Your task to perform on an android device: What's on my calendar today? Image 0: 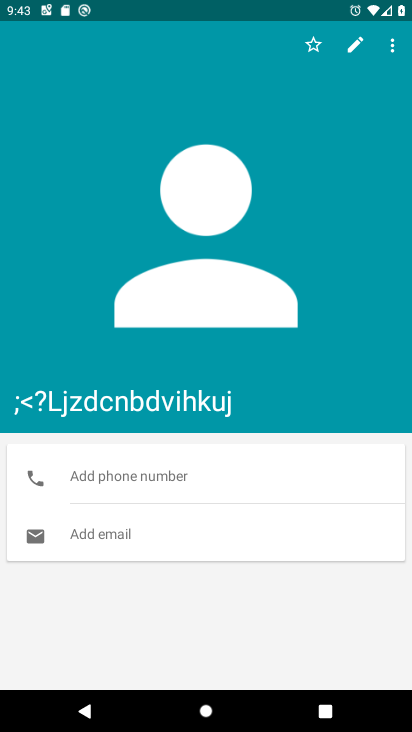
Step 0: press home button
Your task to perform on an android device: What's on my calendar today? Image 1: 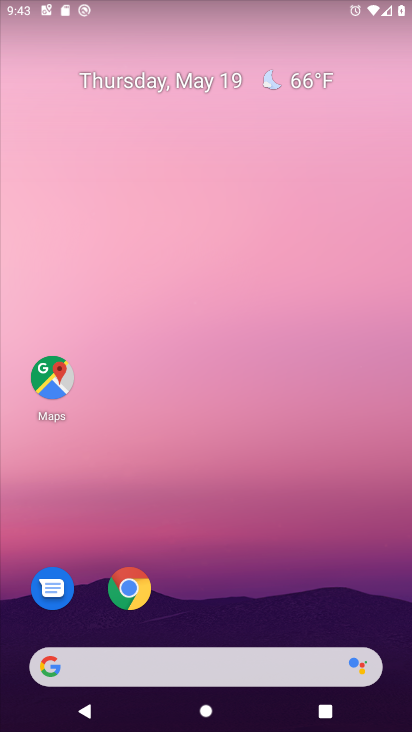
Step 1: drag from (376, 585) to (333, 254)
Your task to perform on an android device: What's on my calendar today? Image 2: 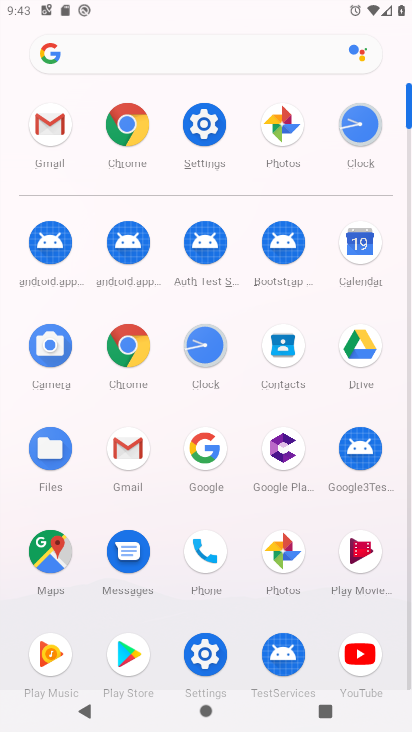
Step 2: click (365, 257)
Your task to perform on an android device: What's on my calendar today? Image 3: 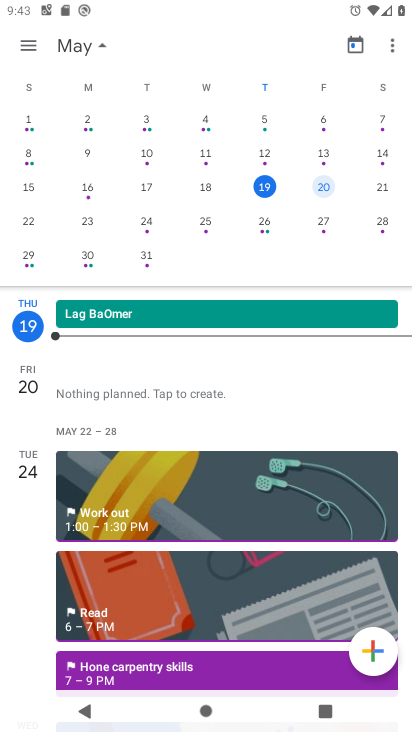
Step 3: task complete